Your task to perform on an android device: turn on location history Image 0: 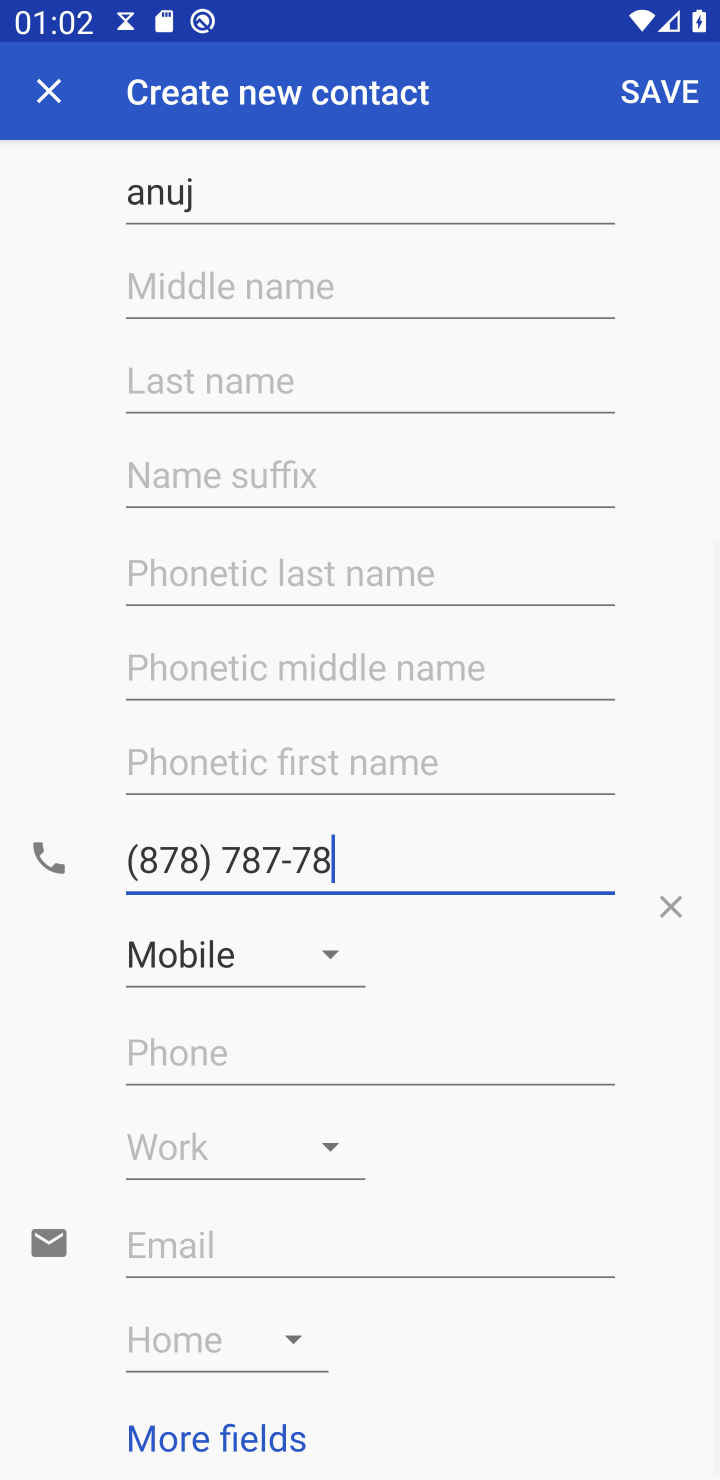
Step 0: drag from (369, 1316) to (483, 798)
Your task to perform on an android device: turn on location history Image 1: 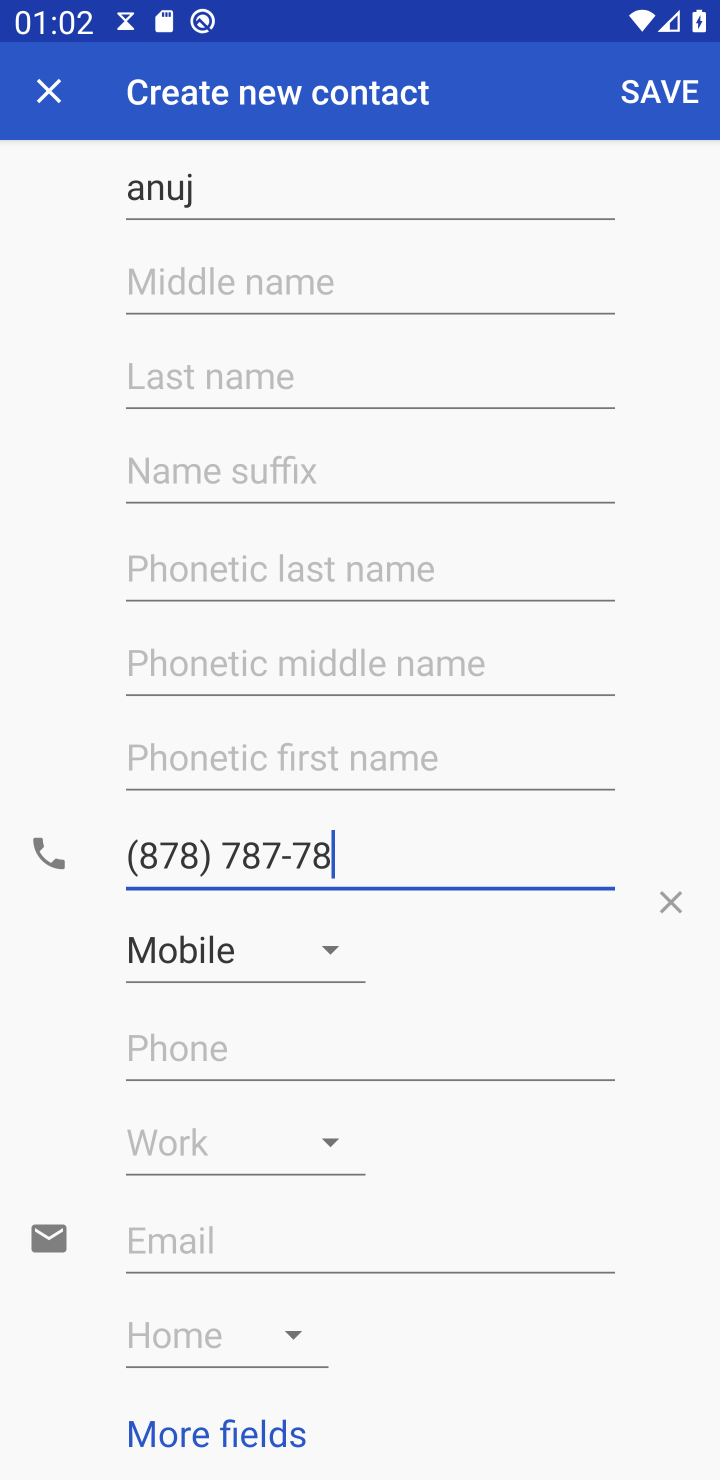
Step 1: press home button
Your task to perform on an android device: turn on location history Image 2: 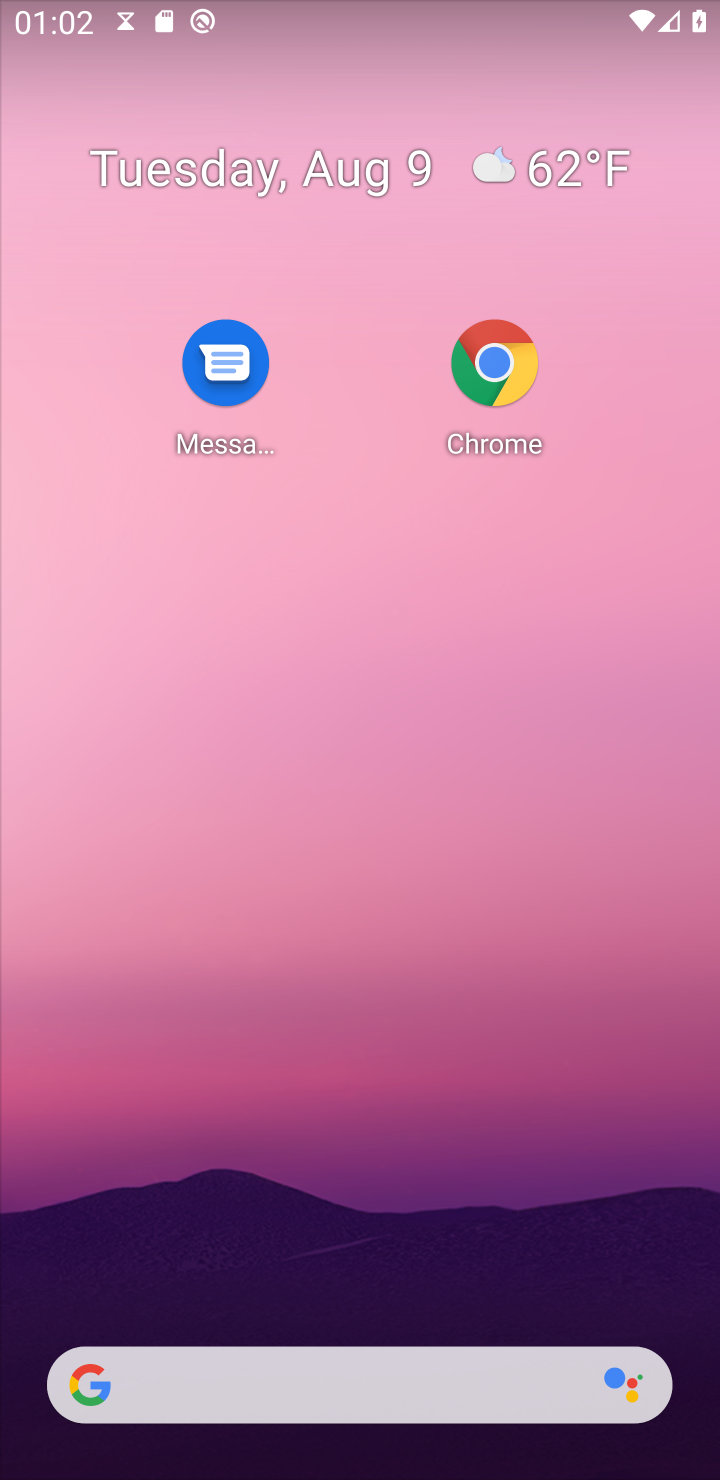
Step 2: drag from (400, 1033) to (453, 329)
Your task to perform on an android device: turn on location history Image 3: 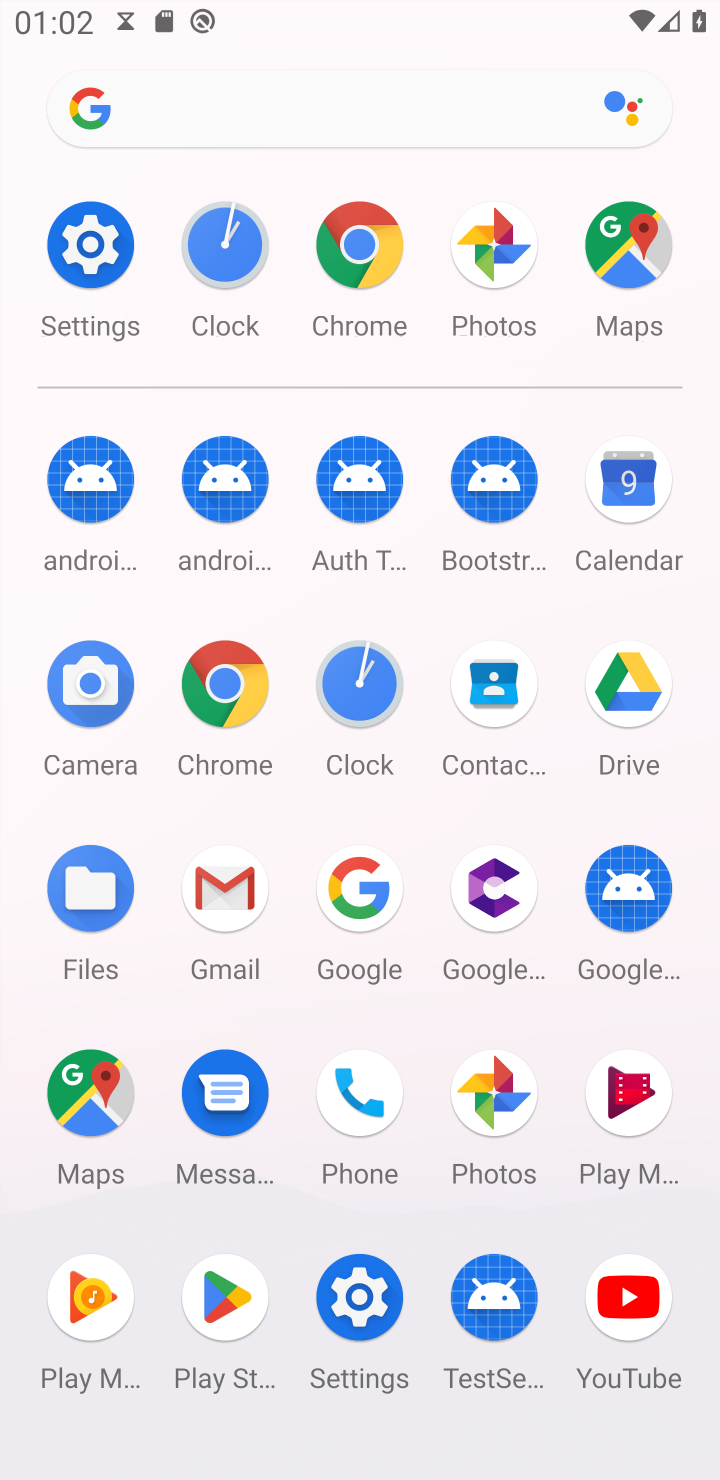
Step 3: click (106, 233)
Your task to perform on an android device: turn on location history Image 4: 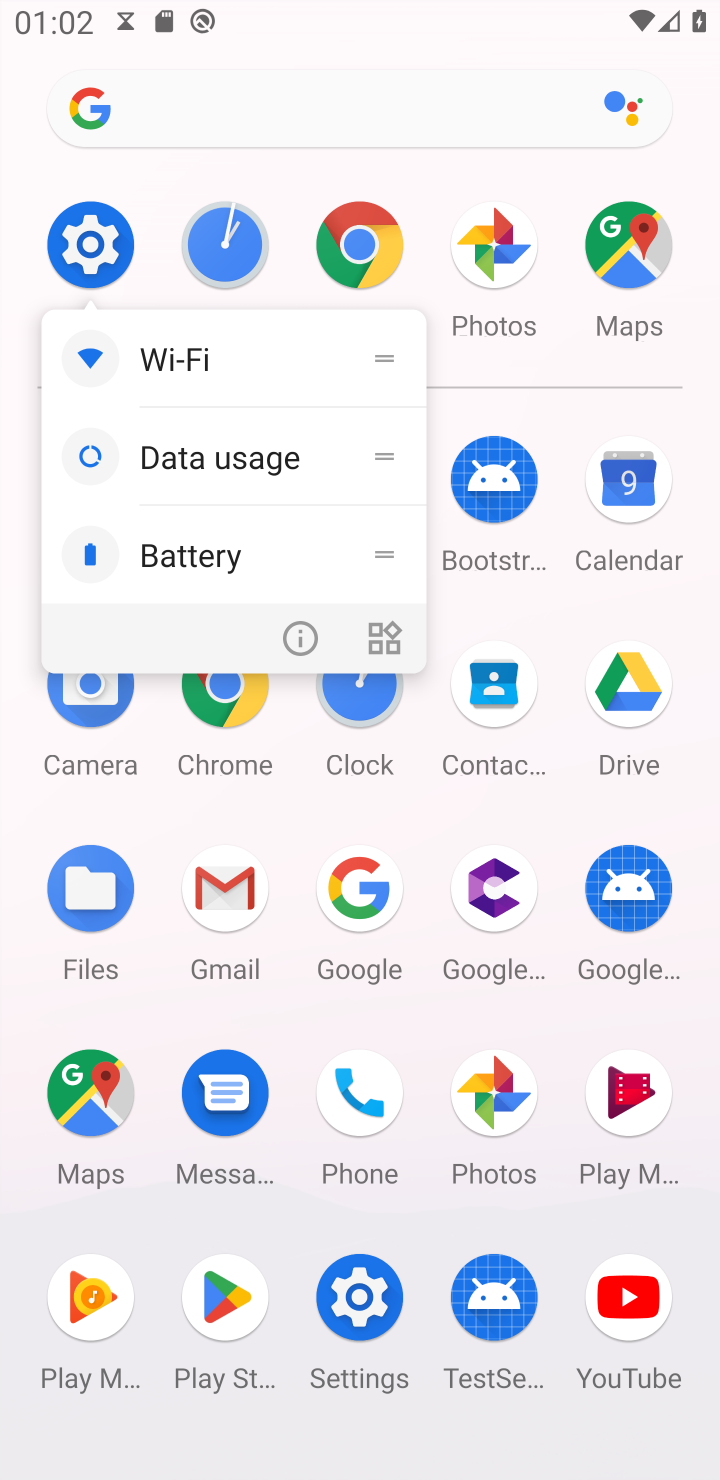
Step 4: click (79, 244)
Your task to perform on an android device: turn on location history Image 5: 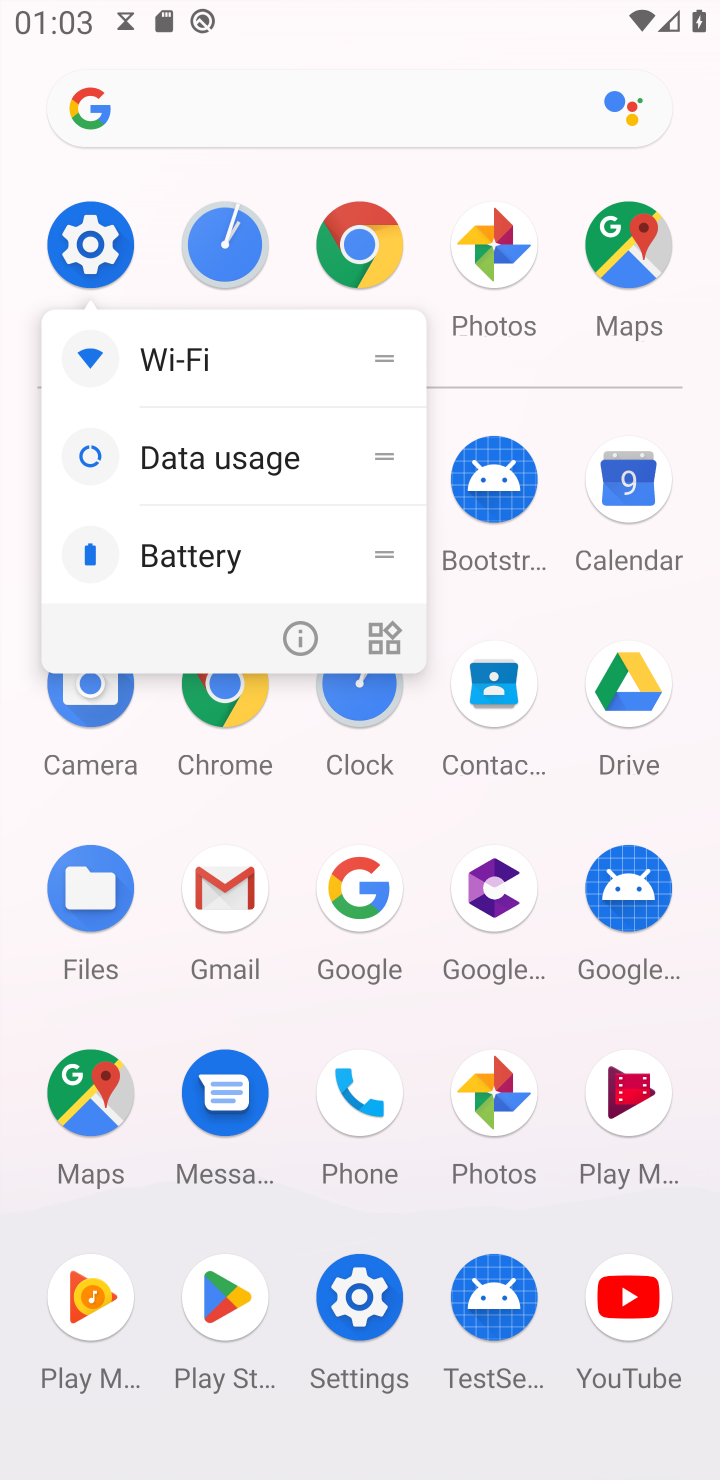
Step 5: click (79, 244)
Your task to perform on an android device: turn on location history Image 6: 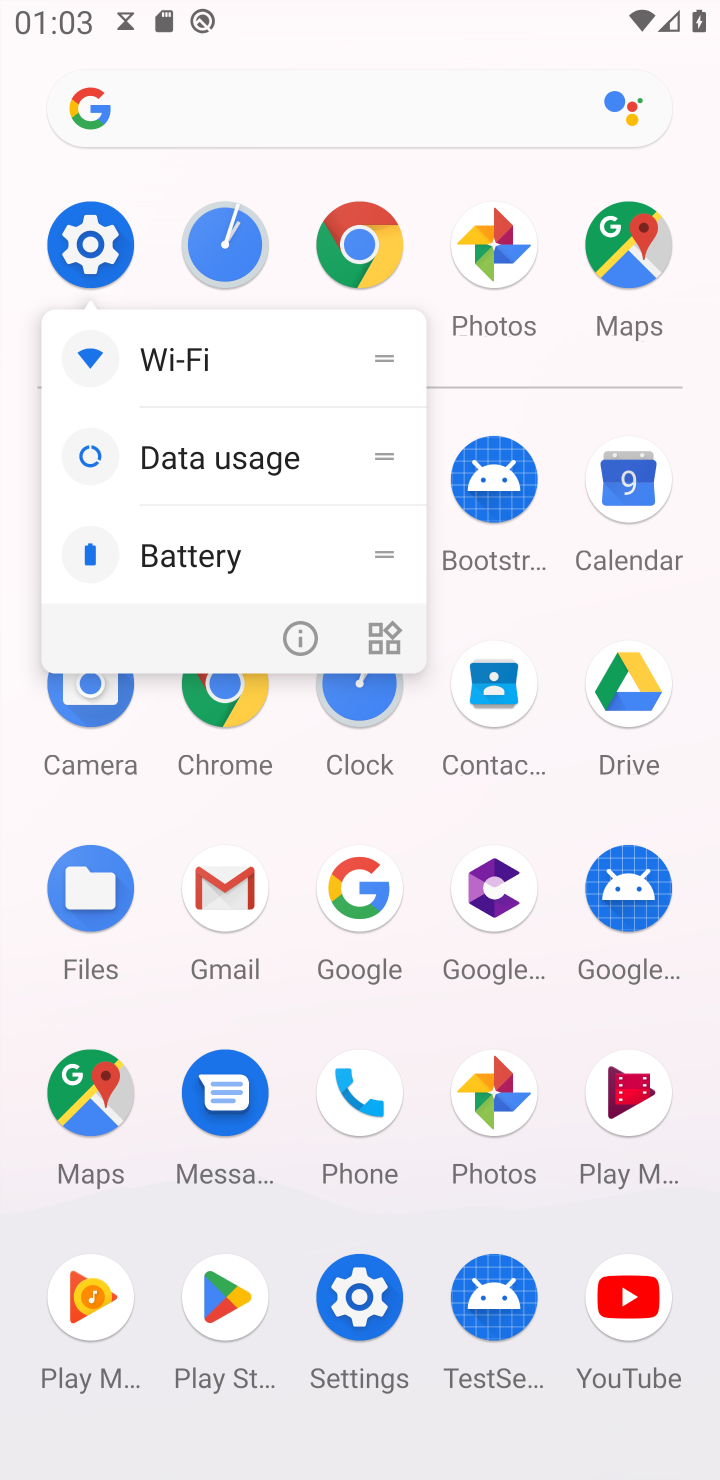
Step 6: click (90, 244)
Your task to perform on an android device: turn on location history Image 7: 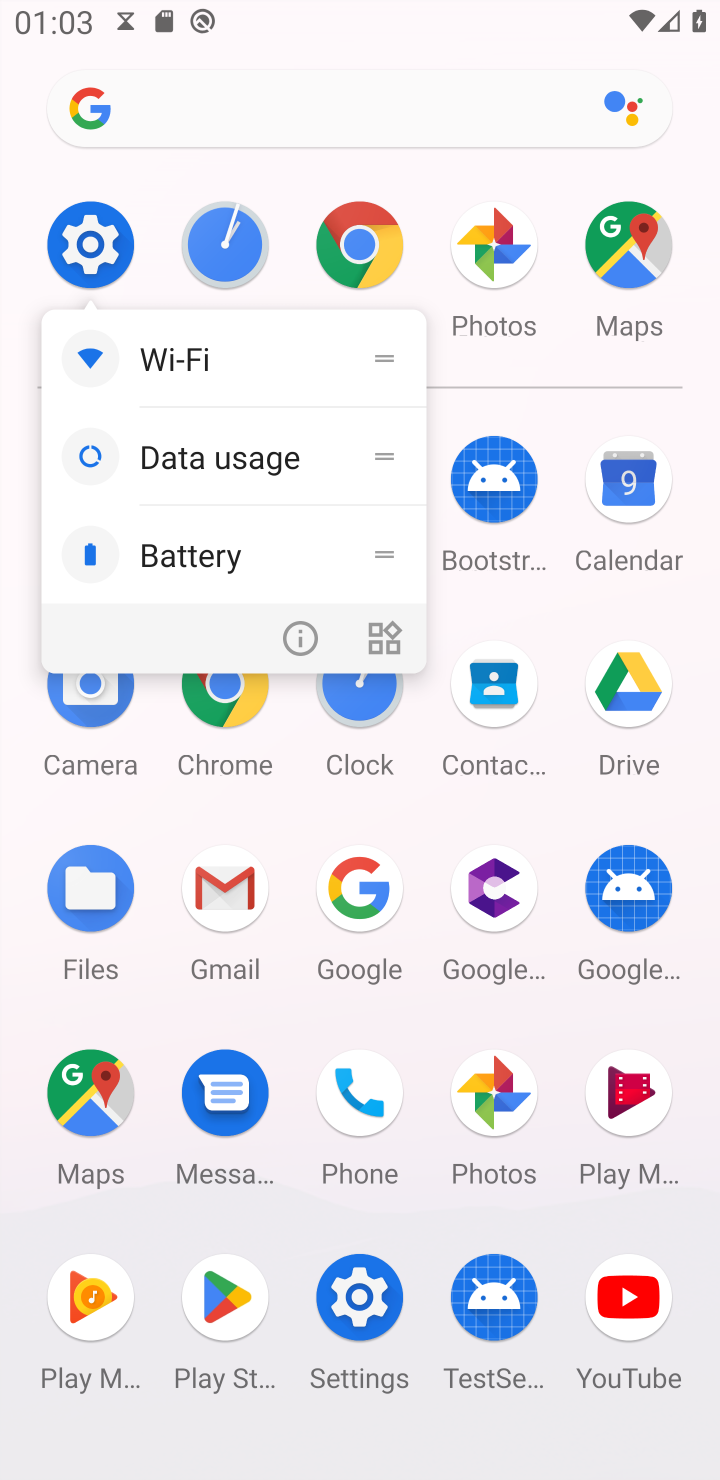
Step 7: click (81, 241)
Your task to perform on an android device: turn on location history Image 8: 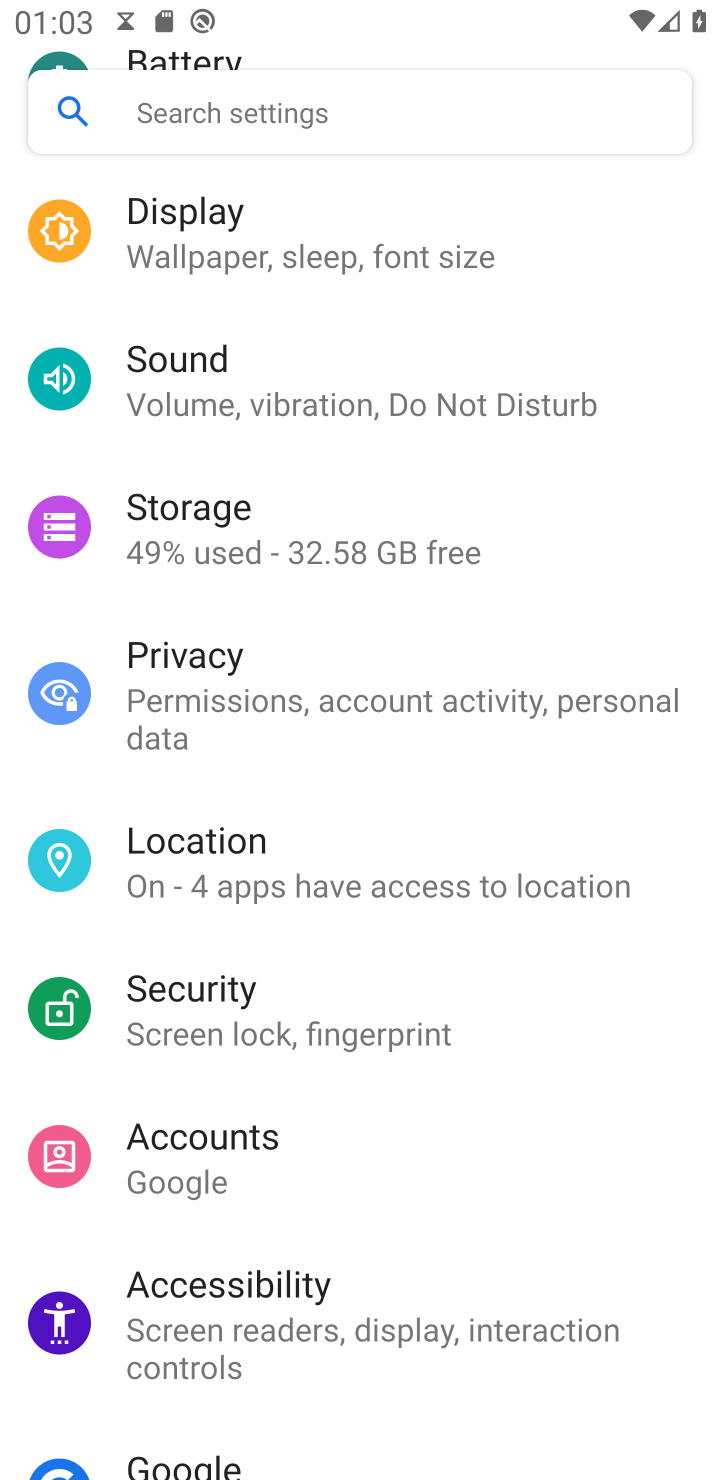
Step 8: click (238, 879)
Your task to perform on an android device: turn on location history Image 9: 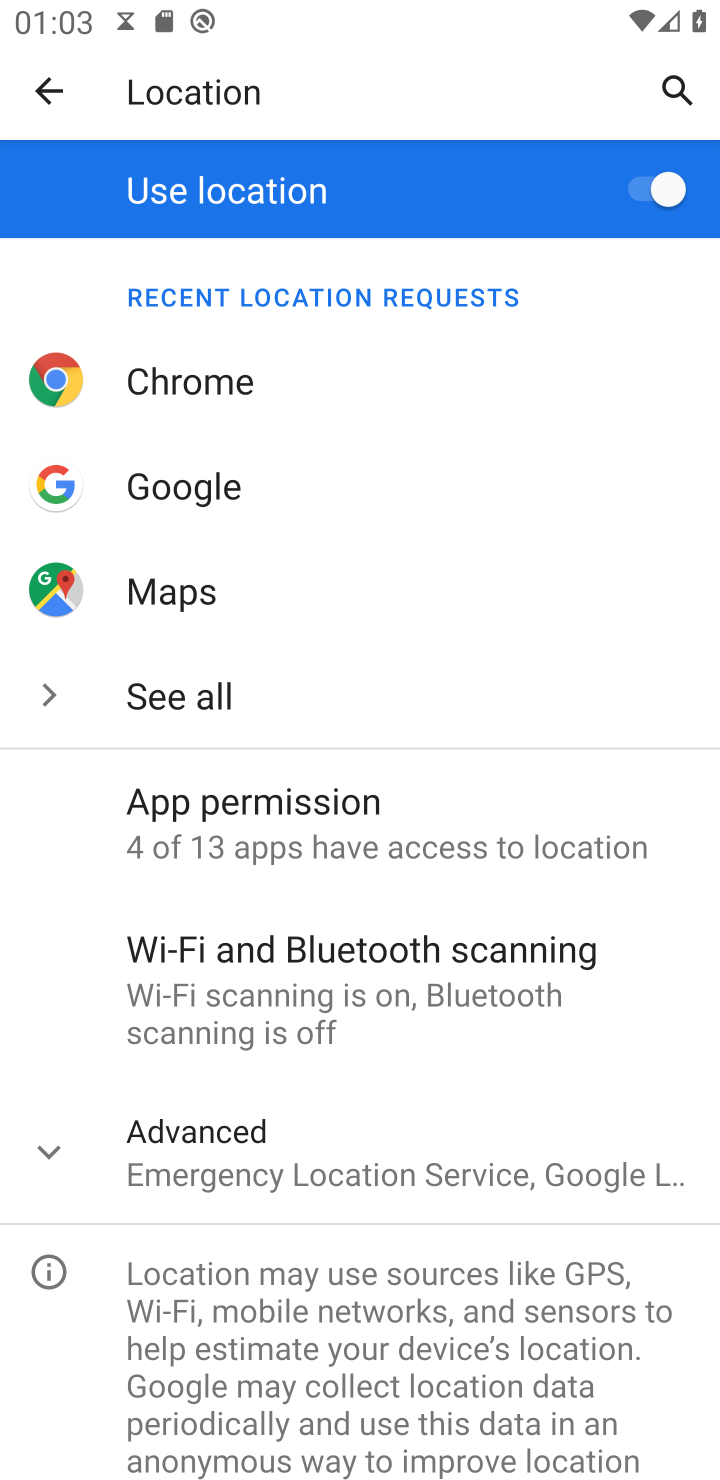
Step 9: click (245, 1107)
Your task to perform on an android device: turn on location history Image 10: 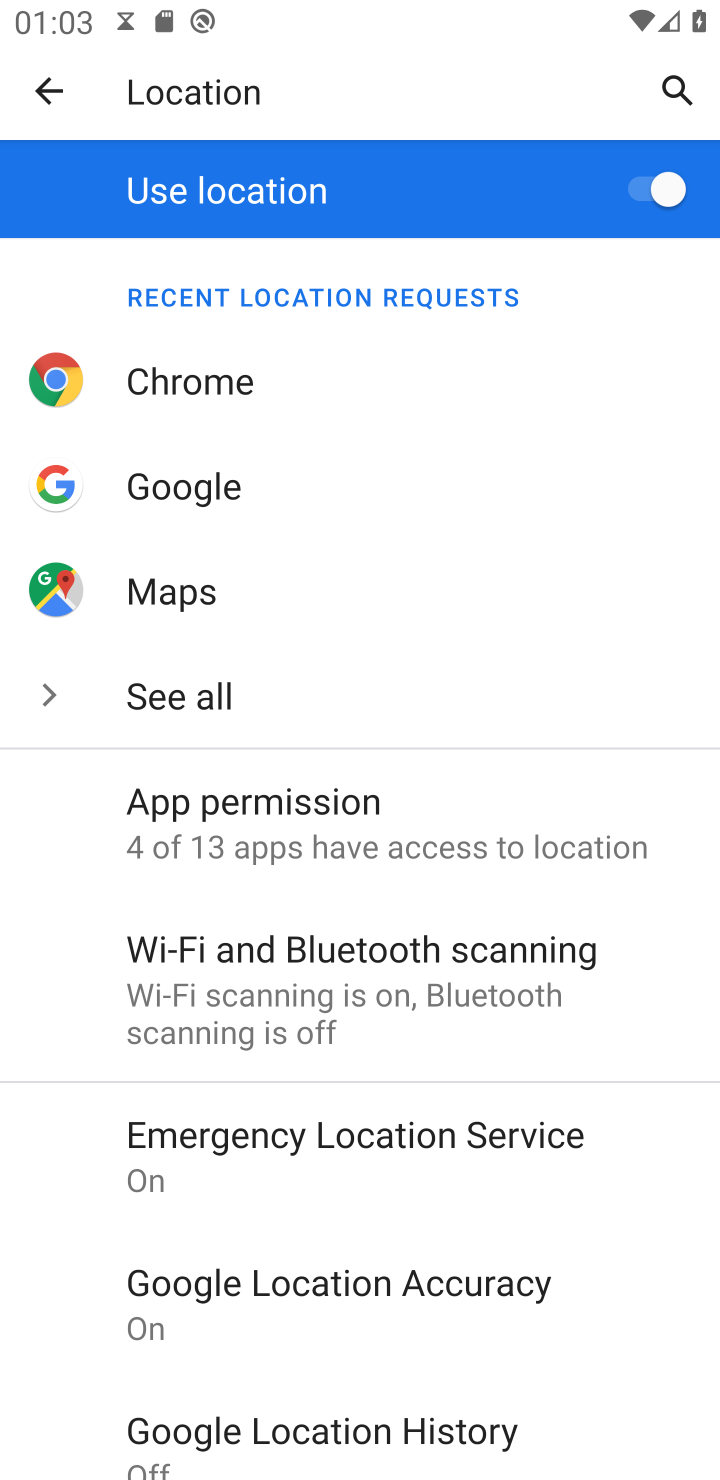
Step 10: drag from (368, 1358) to (422, 908)
Your task to perform on an android device: turn on location history Image 11: 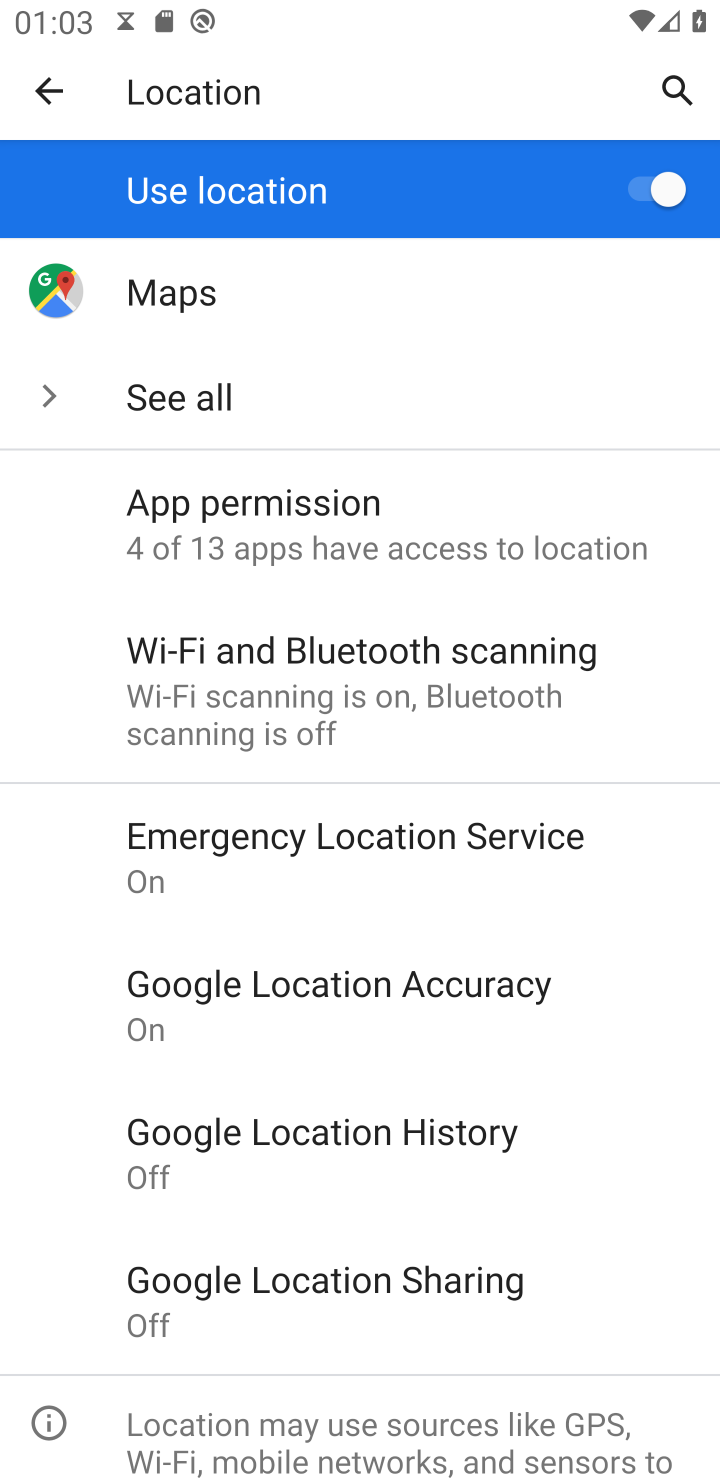
Step 11: click (253, 1309)
Your task to perform on an android device: turn on location history Image 12: 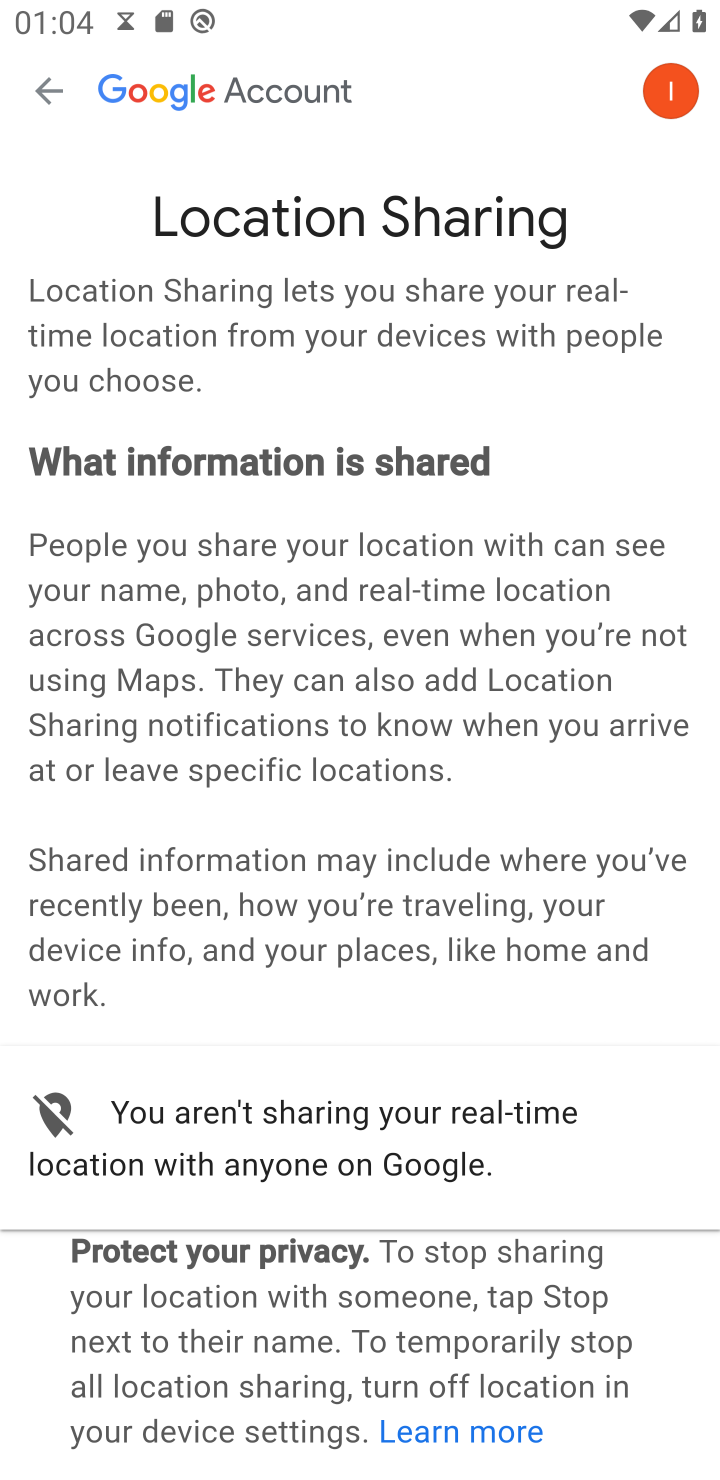
Step 12: drag from (391, 931) to (496, 273)
Your task to perform on an android device: turn on location history Image 13: 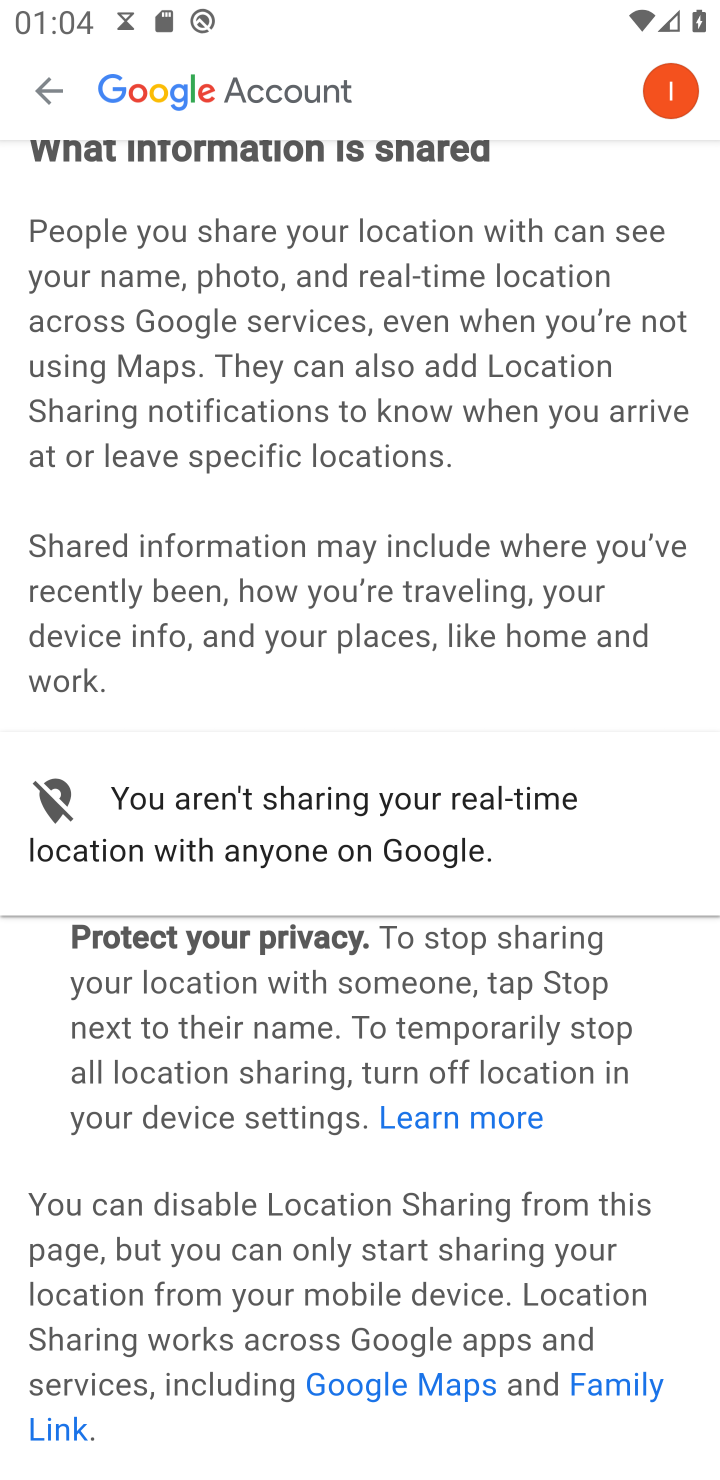
Step 13: drag from (288, 1284) to (422, 464)
Your task to perform on an android device: turn on location history Image 14: 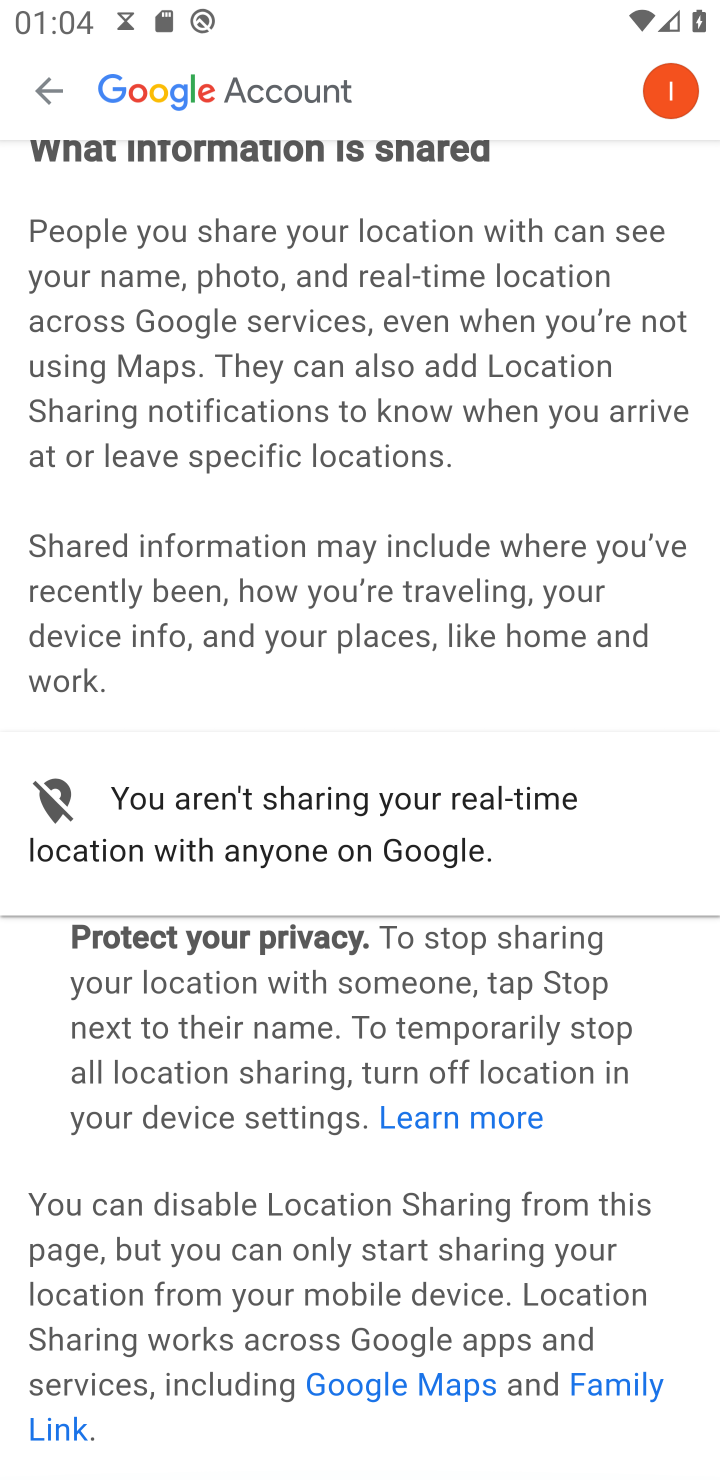
Step 14: drag from (347, 1190) to (470, 459)
Your task to perform on an android device: turn on location history Image 15: 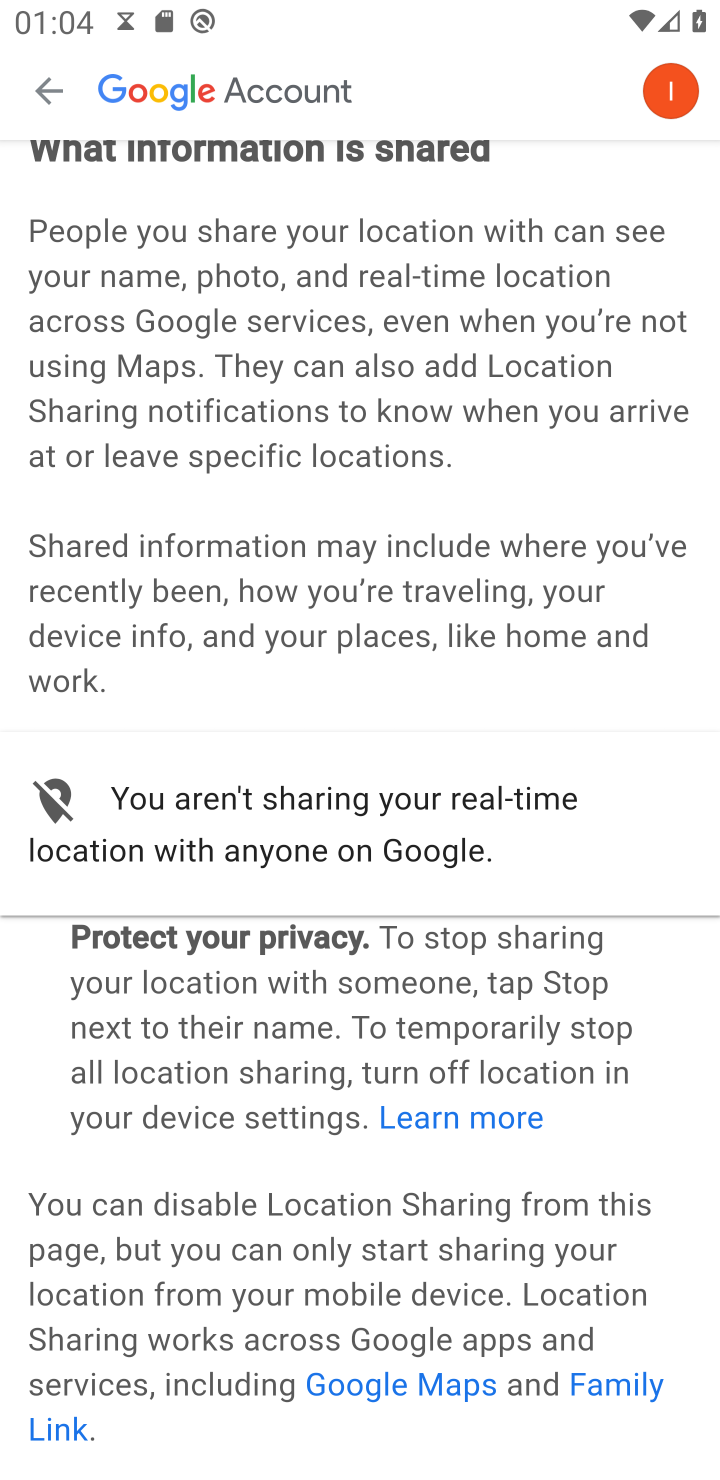
Step 15: click (36, 60)
Your task to perform on an android device: turn on location history Image 16: 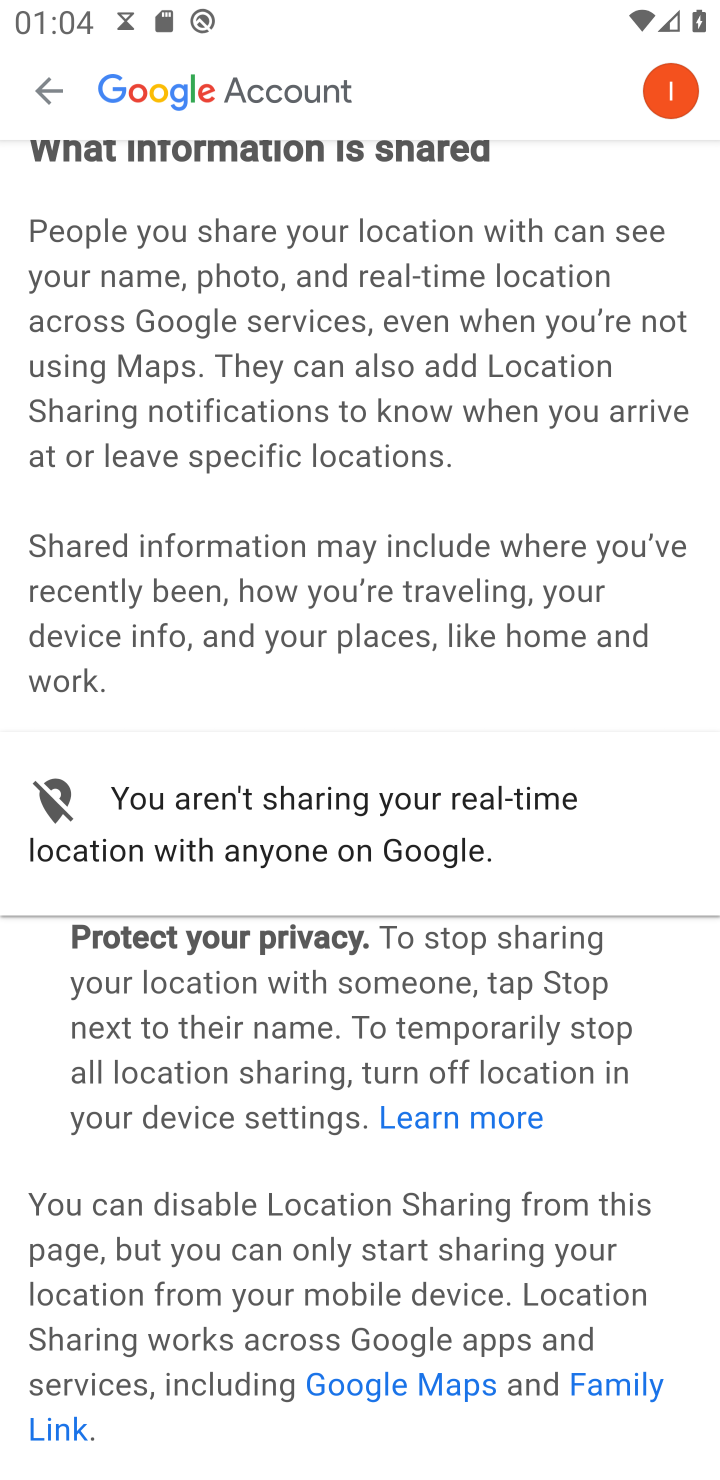
Step 16: click (69, 97)
Your task to perform on an android device: turn on location history Image 17: 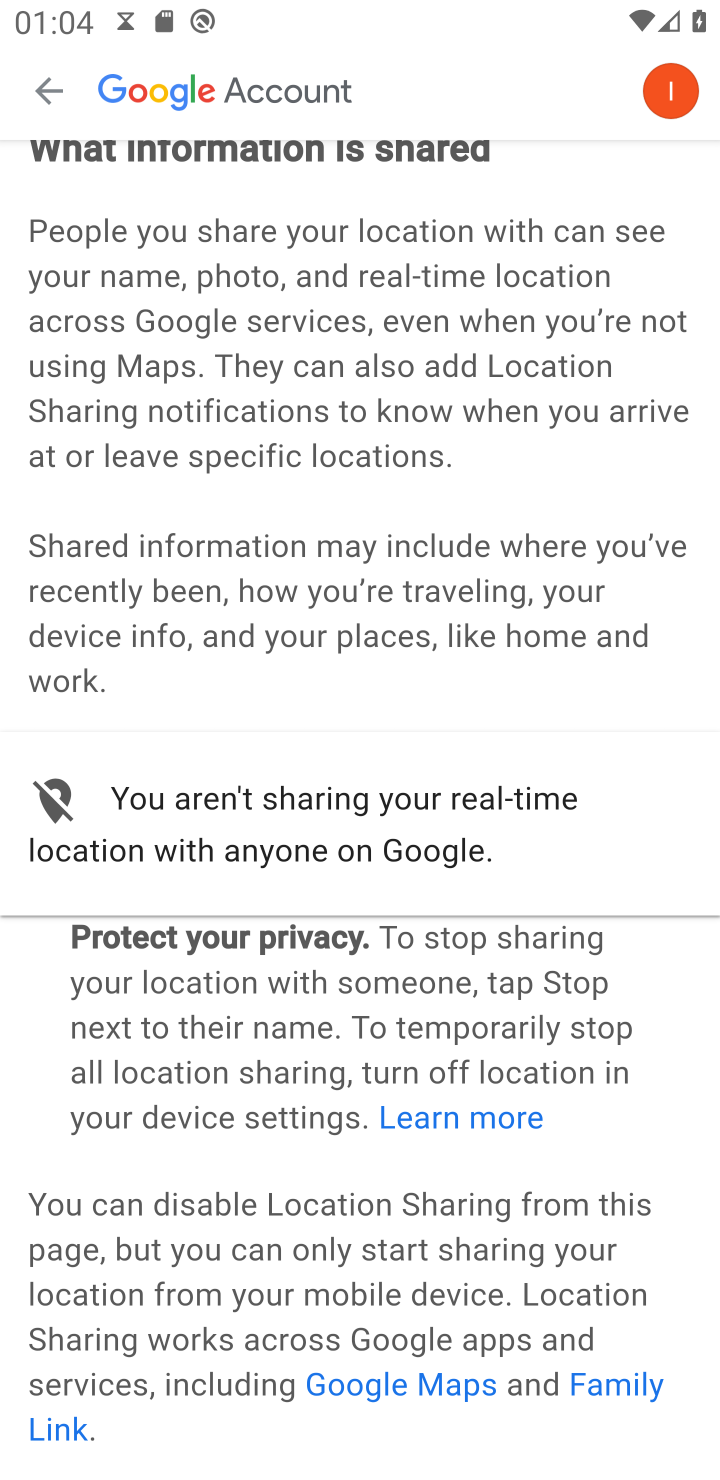
Step 17: click (57, 94)
Your task to perform on an android device: turn on location history Image 18: 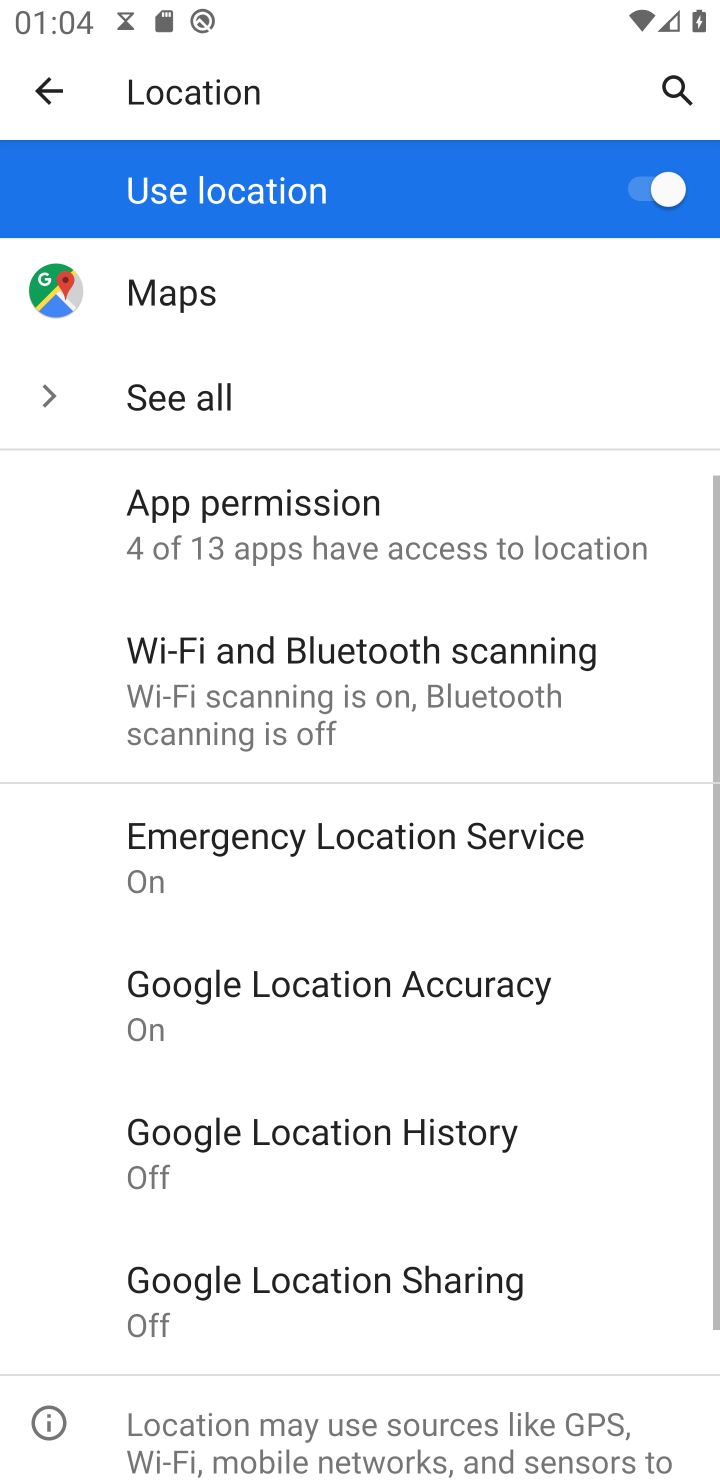
Step 18: click (399, 1155)
Your task to perform on an android device: turn on location history Image 19: 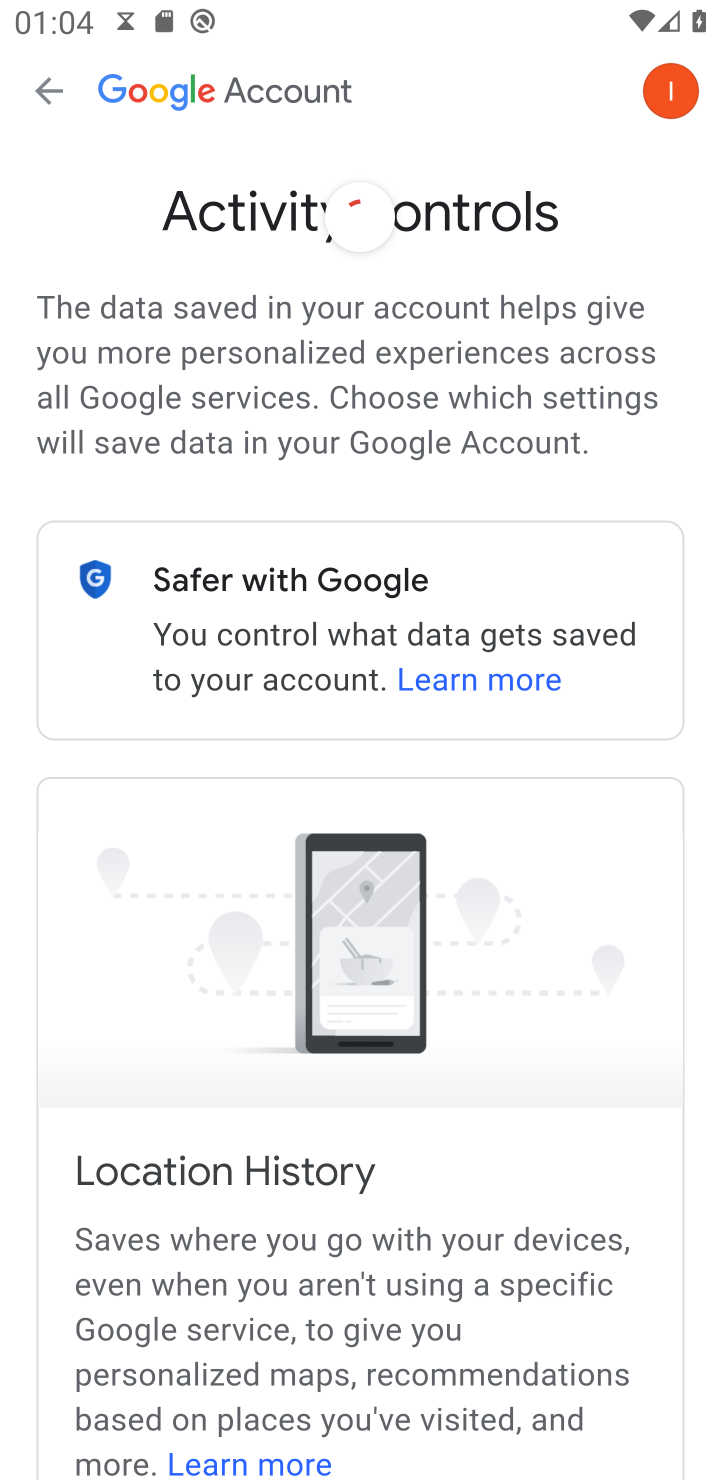
Step 19: drag from (406, 1260) to (605, 485)
Your task to perform on an android device: turn on location history Image 20: 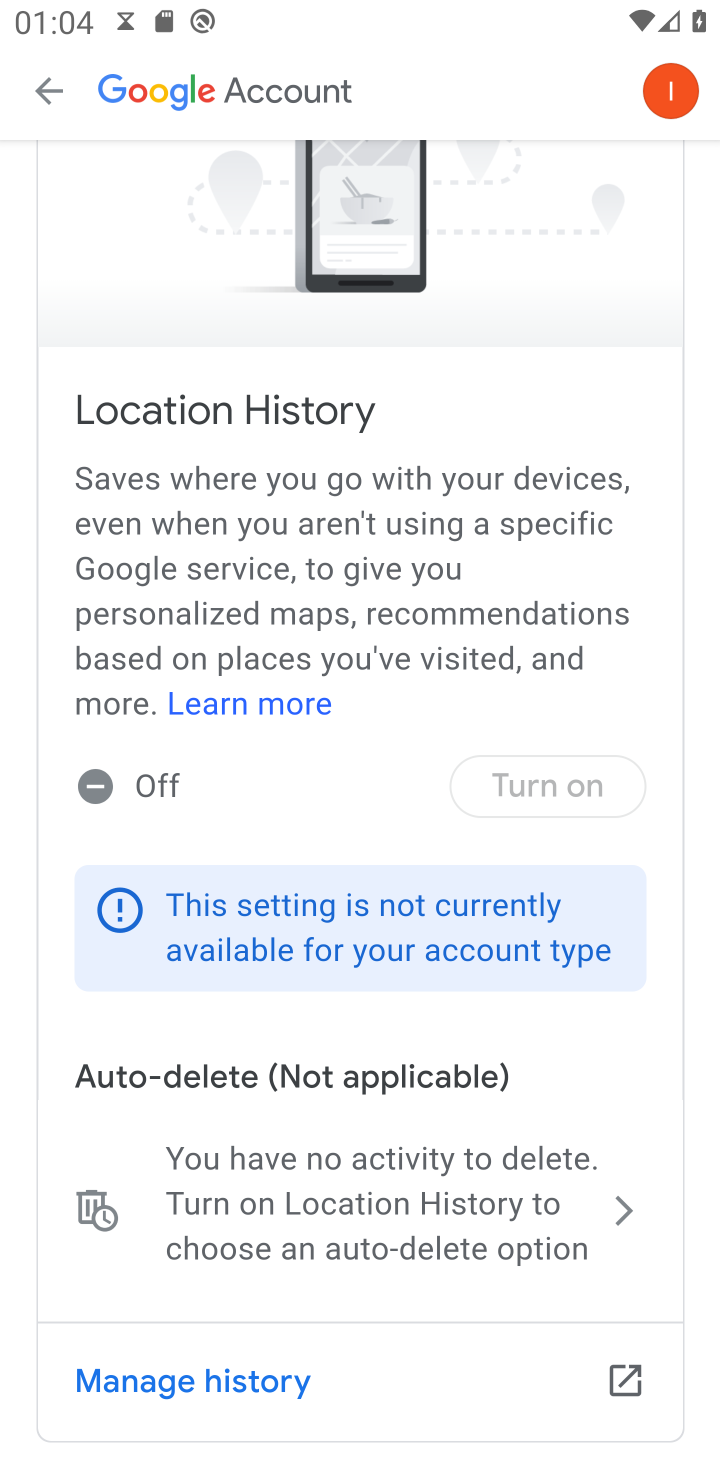
Step 20: click (530, 1335)
Your task to perform on an android device: turn on location history Image 21: 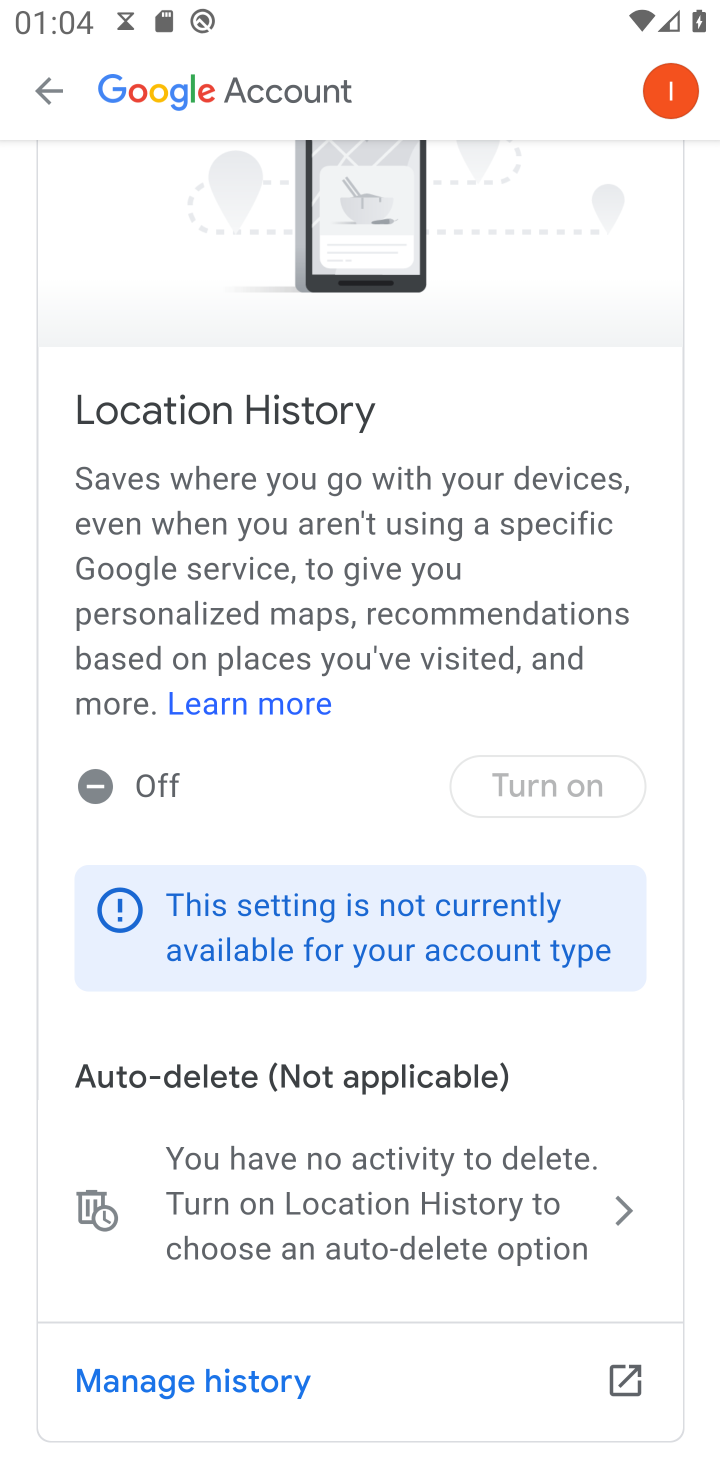
Step 21: drag from (530, 1335) to (551, 675)
Your task to perform on an android device: turn on location history Image 22: 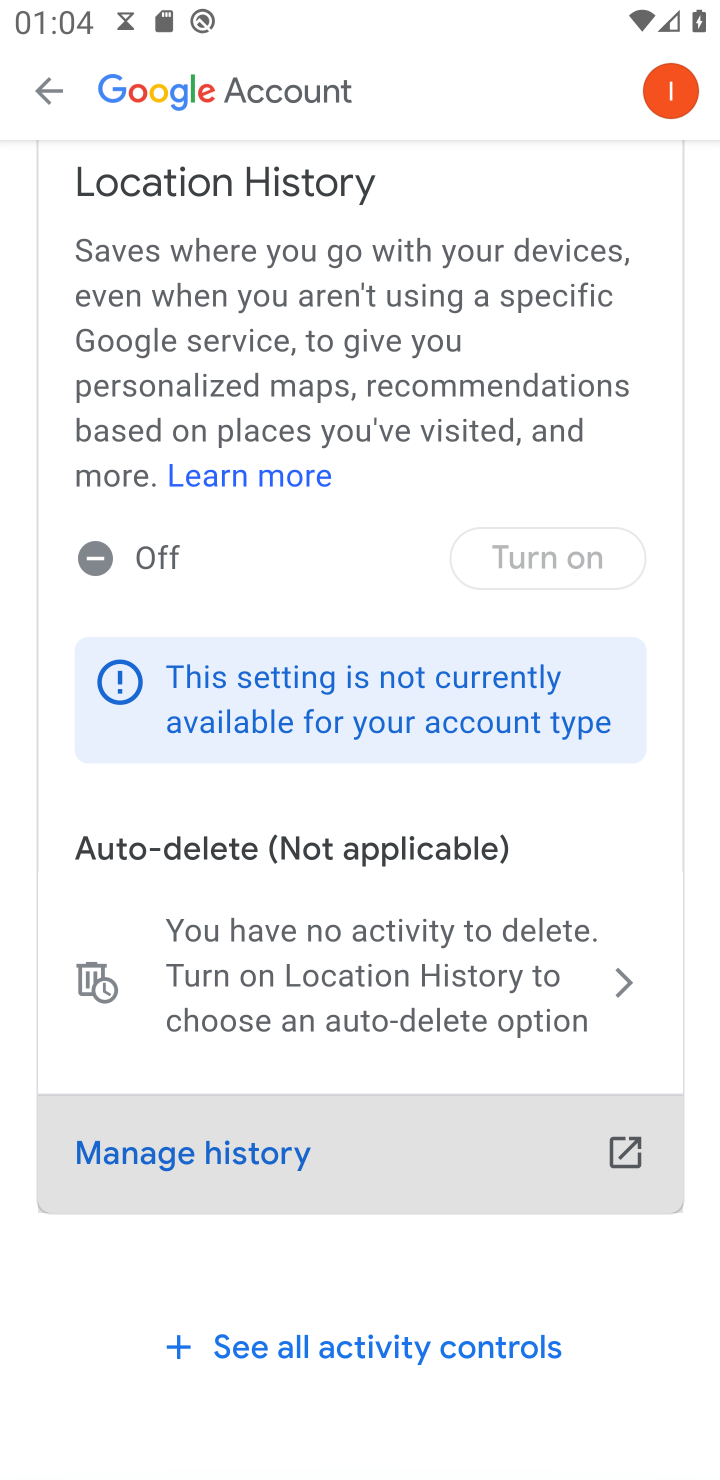
Step 22: click (157, 547)
Your task to perform on an android device: turn on location history Image 23: 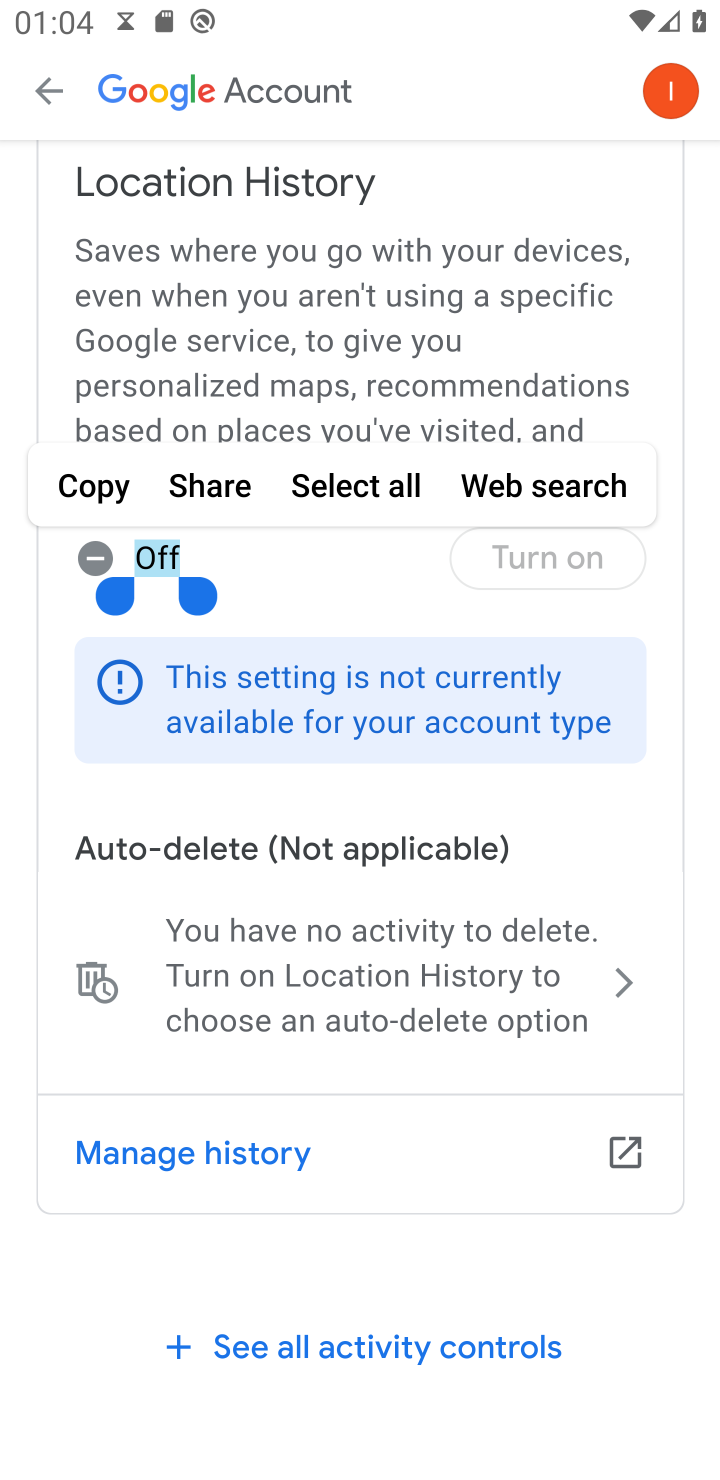
Step 23: click (268, 625)
Your task to perform on an android device: turn on location history Image 24: 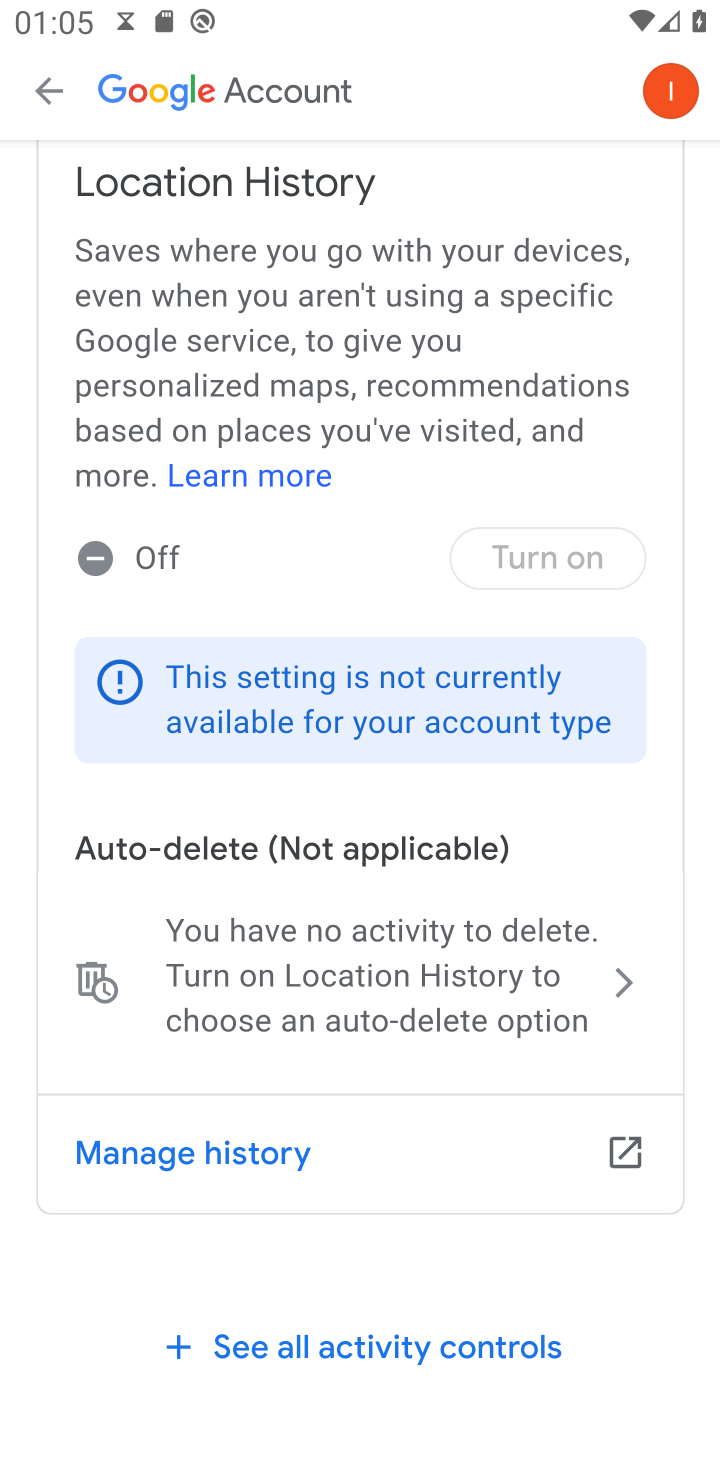
Step 24: click (149, 582)
Your task to perform on an android device: turn on location history Image 25: 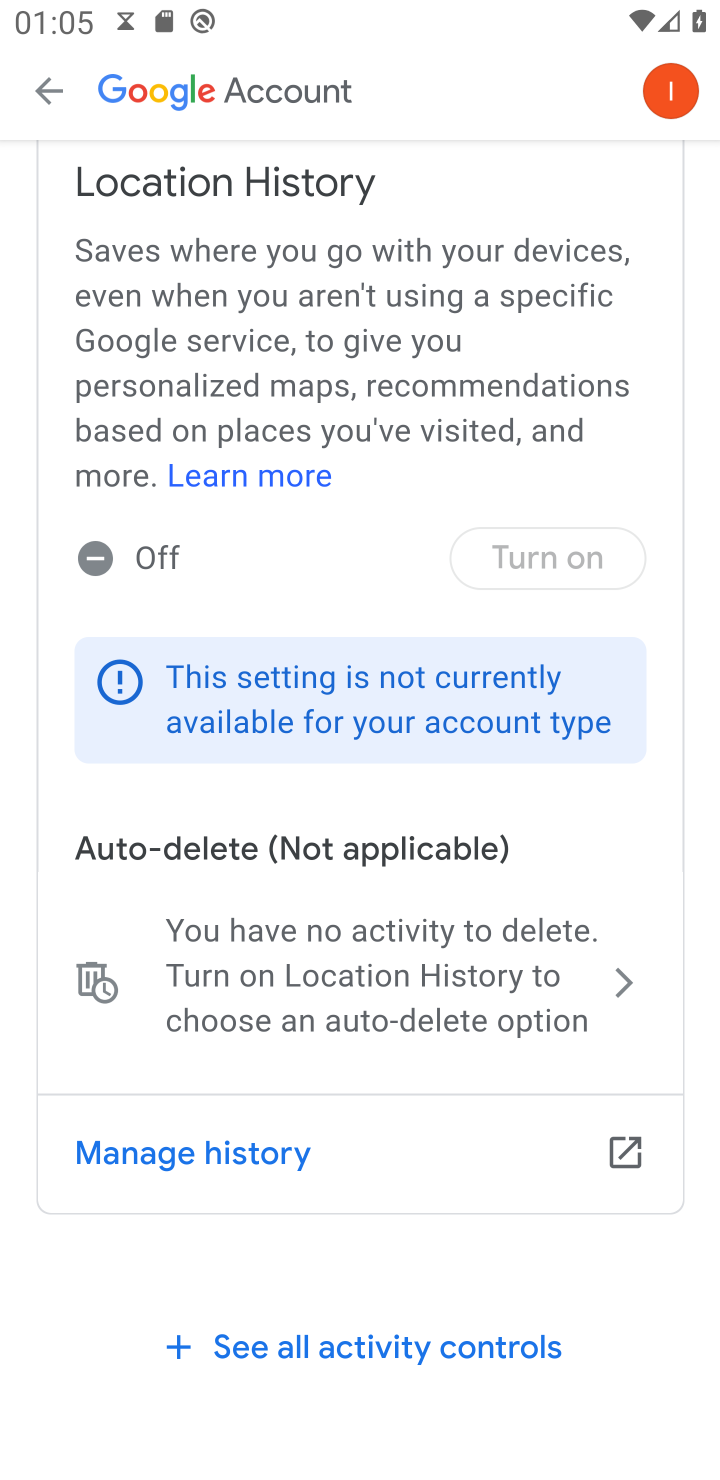
Step 25: click (149, 579)
Your task to perform on an android device: turn on location history Image 26: 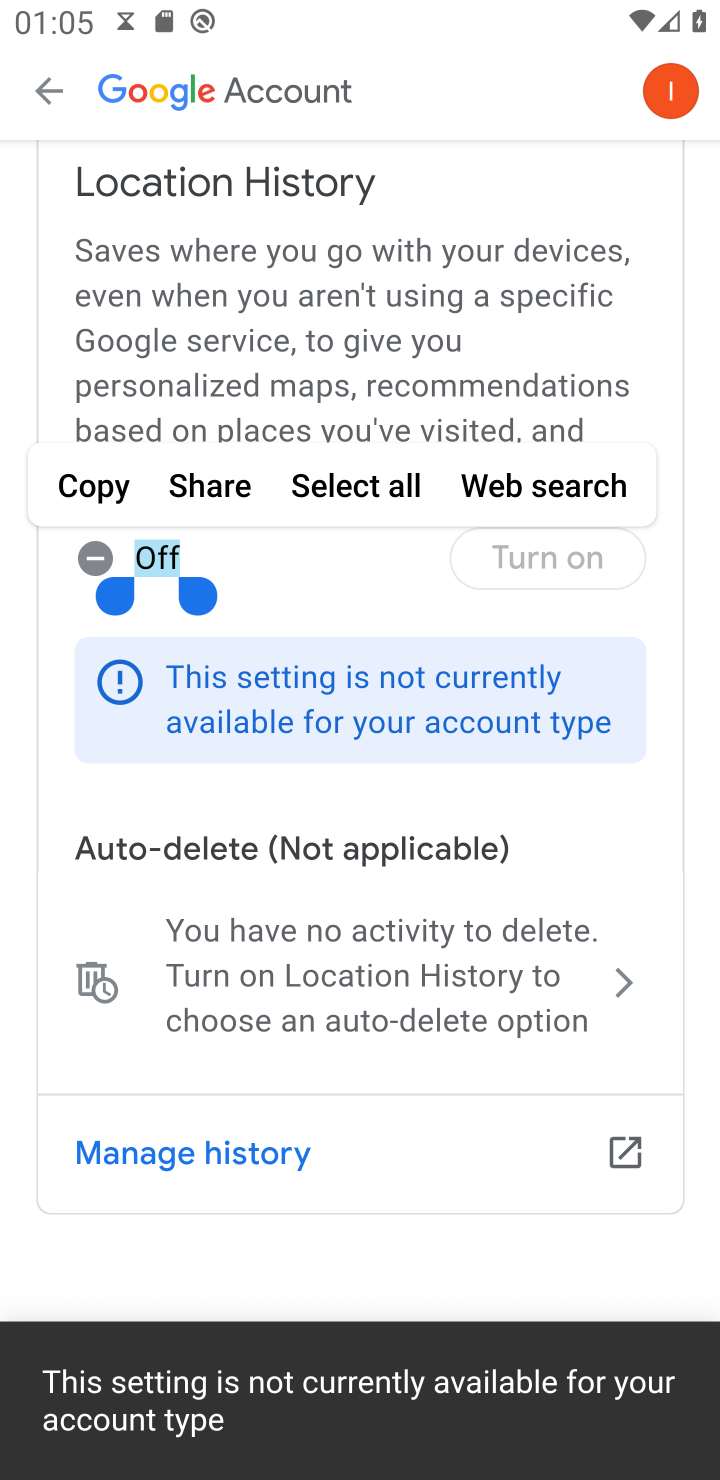
Step 26: click (129, 544)
Your task to perform on an android device: turn on location history Image 27: 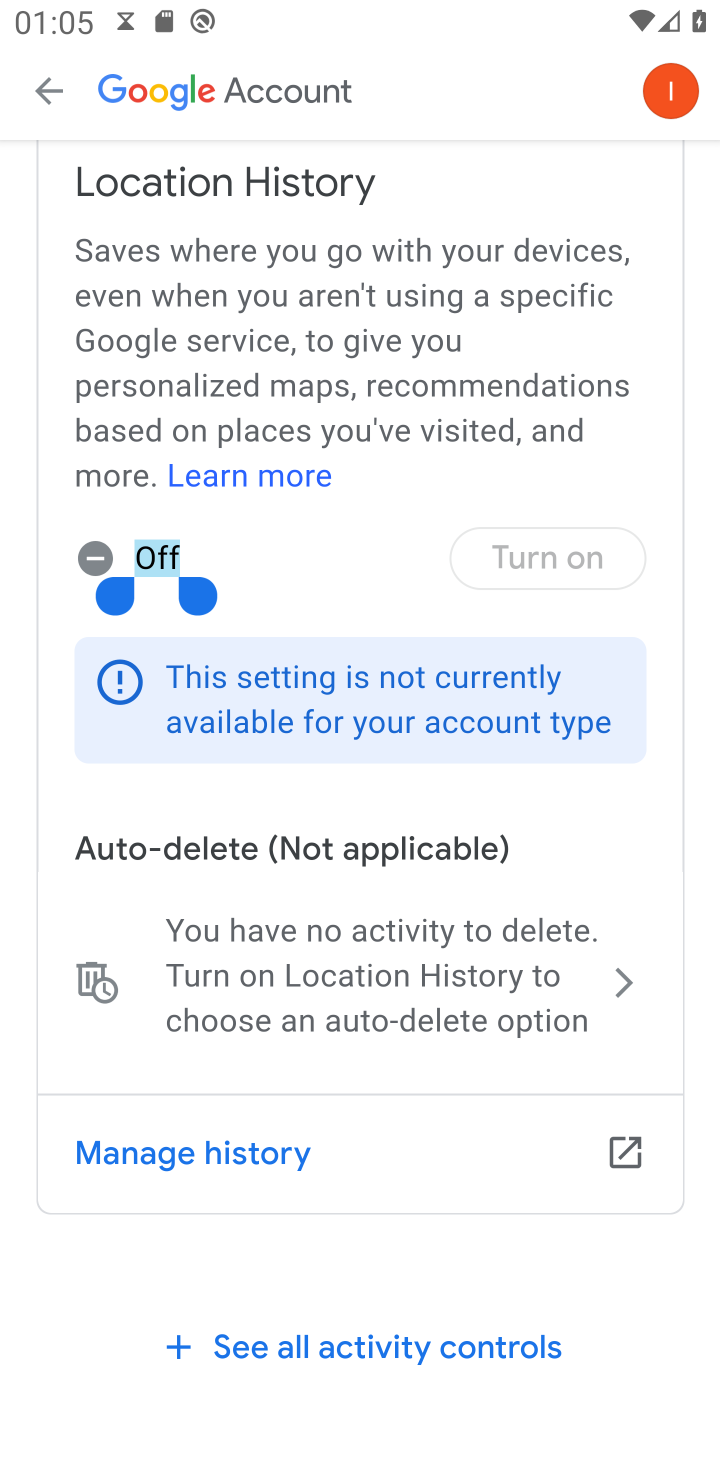
Step 27: task complete